Your task to perform on an android device: Open Google Chrome and open the bookmarks view Image 0: 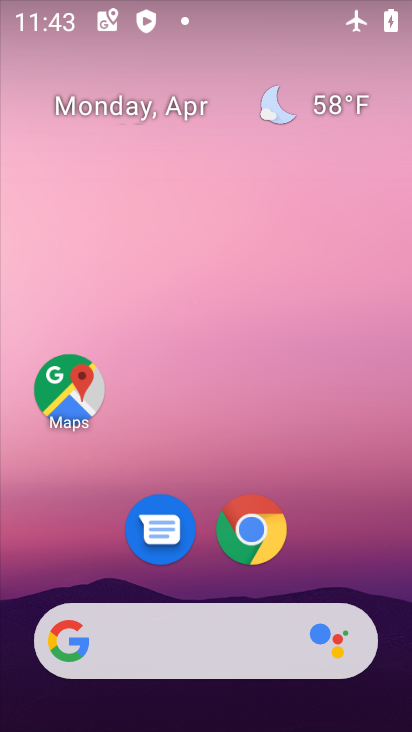
Step 0: drag from (380, 602) to (192, 67)
Your task to perform on an android device: Open Google Chrome and open the bookmarks view Image 1: 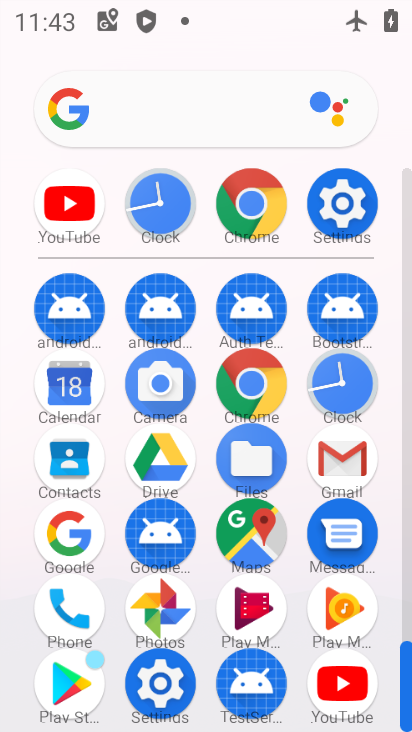
Step 1: click (252, 402)
Your task to perform on an android device: Open Google Chrome and open the bookmarks view Image 2: 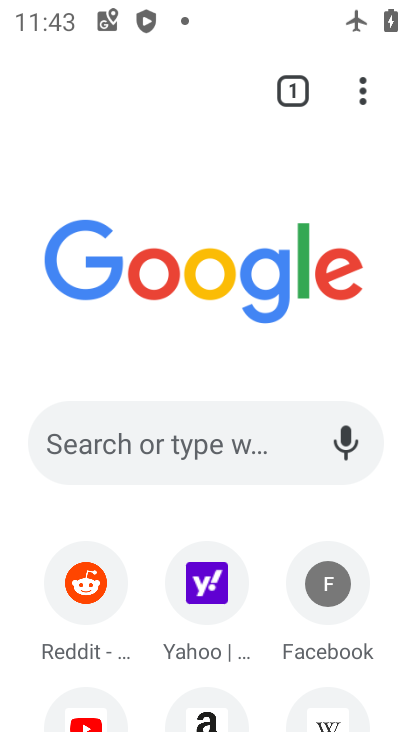
Step 2: click (362, 86)
Your task to perform on an android device: Open Google Chrome and open the bookmarks view Image 3: 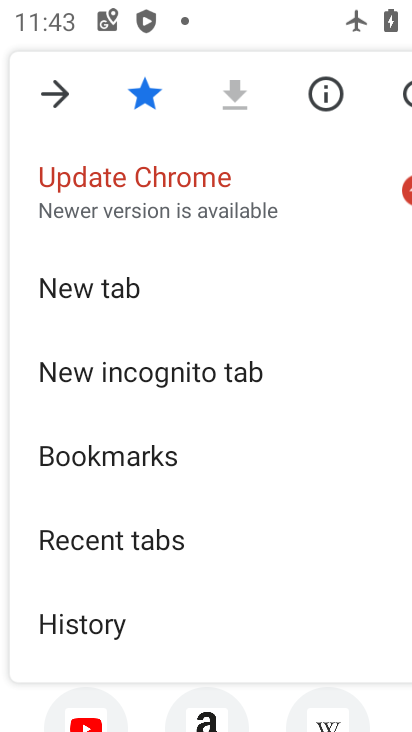
Step 3: click (34, 474)
Your task to perform on an android device: Open Google Chrome and open the bookmarks view Image 4: 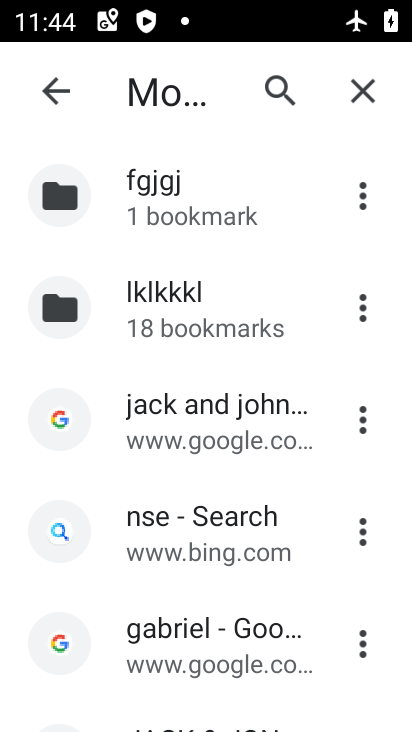
Step 4: task complete